Your task to perform on an android device: turn off priority inbox in the gmail app Image 0: 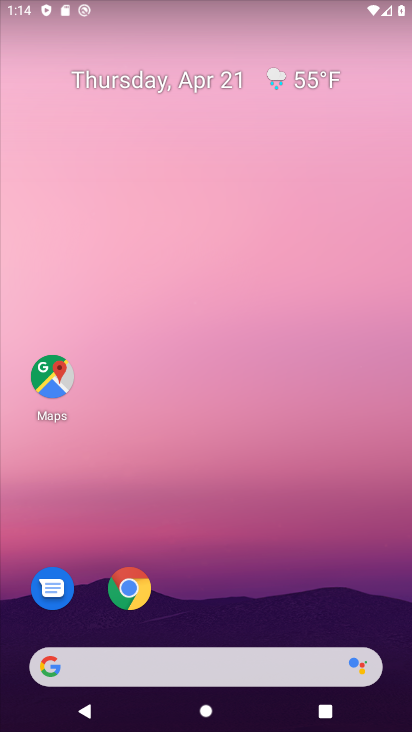
Step 0: click (303, 75)
Your task to perform on an android device: turn off priority inbox in the gmail app Image 1: 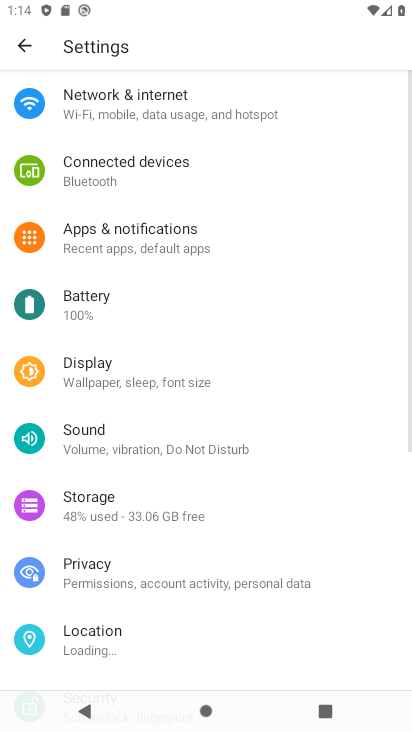
Step 1: press back button
Your task to perform on an android device: turn off priority inbox in the gmail app Image 2: 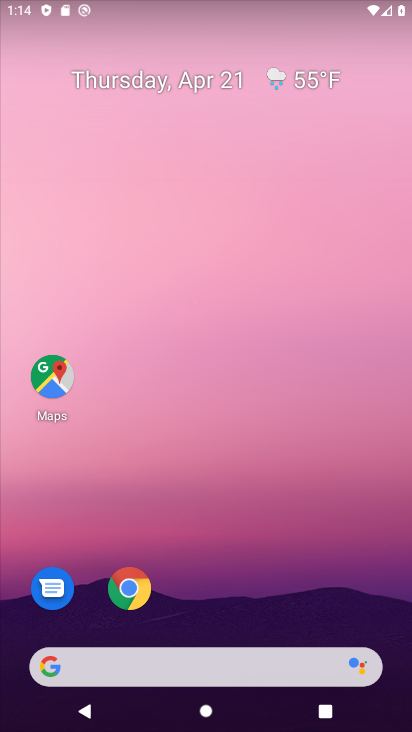
Step 2: drag from (191, 537) to (263, 180)
Your task to perform on an android device: turn off priority inbox in the gmail app Image 3: 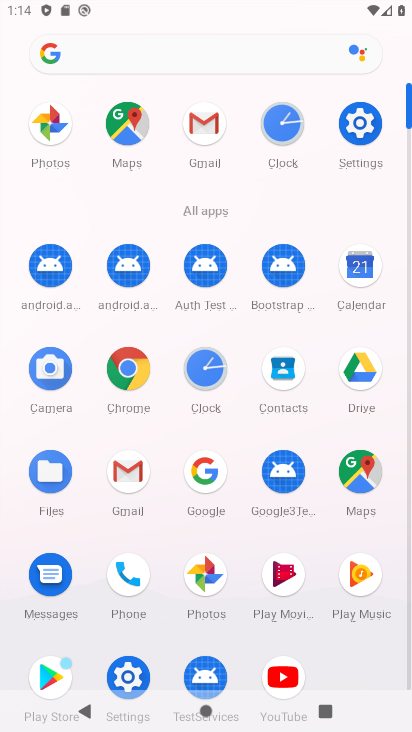
Step 3: click (117, 479)
Your task to perform on an android device: turn off priority inbox in the gmail app Image 4: 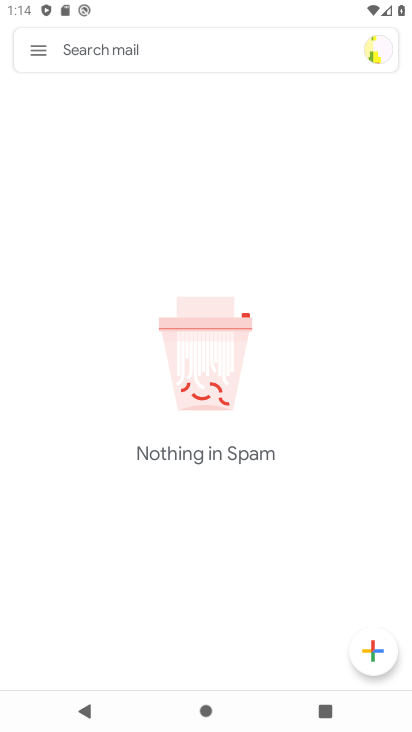
Step 4: click (46, 44)
Your task to perform on an android device: turn off priority inbox in the gmail app Image 5: 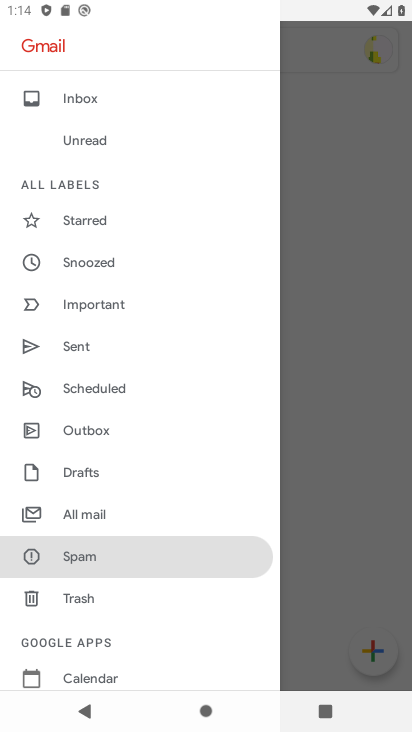
Step 5: drag from (101, 630) to (202, 254)
Your task to perform on an android device: turn off priority inbox in the gmail app Image 6: 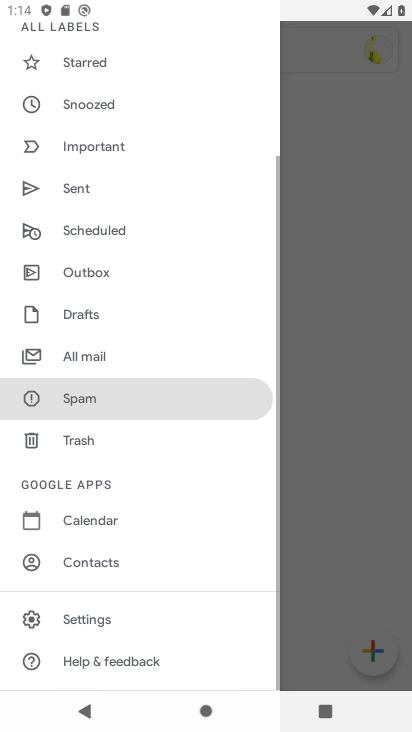
Step 6: click (125, 621)
Your task to perform on an android device: turn off priority inbox in the gmail app Image 7: 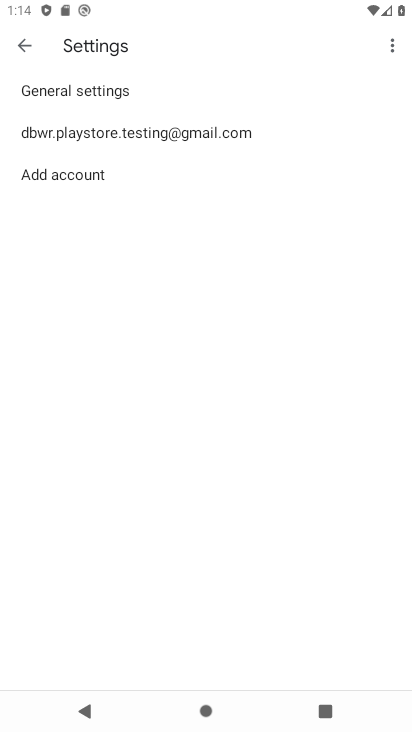
Step 7: click (193, 132)
Your task to perform on an android device: turn off priority inbox in the gmail app Image 8: 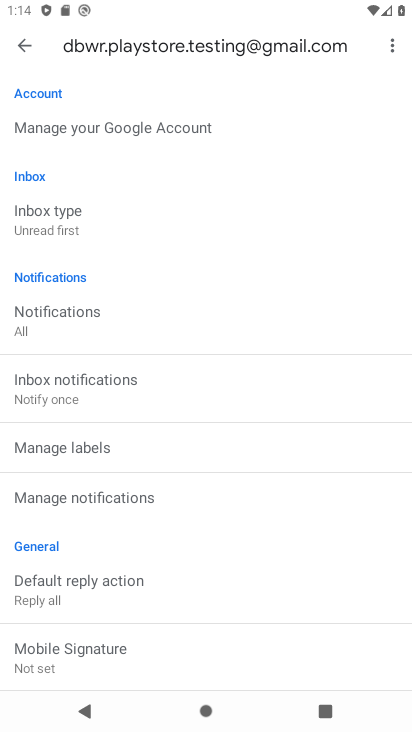
Step 8: click (97, 221)
Your task to perform on an android device: turn off priority inbox in the gmail app Image 9: 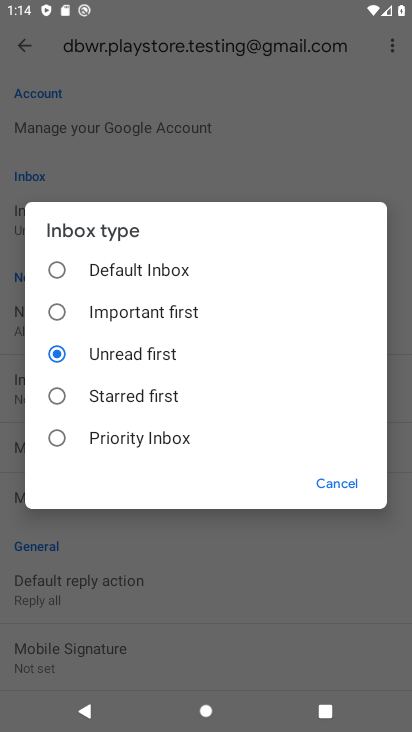
Step 9: task complete